Your task to perform on an android device: Open display settings Image 0: 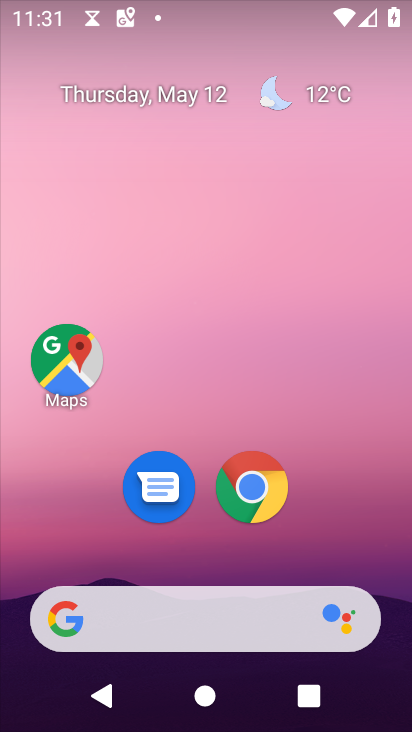
Step 0: drag from (358, 550) to (359, 7)
Your task to perform on an android device: Open display settings Image 1: 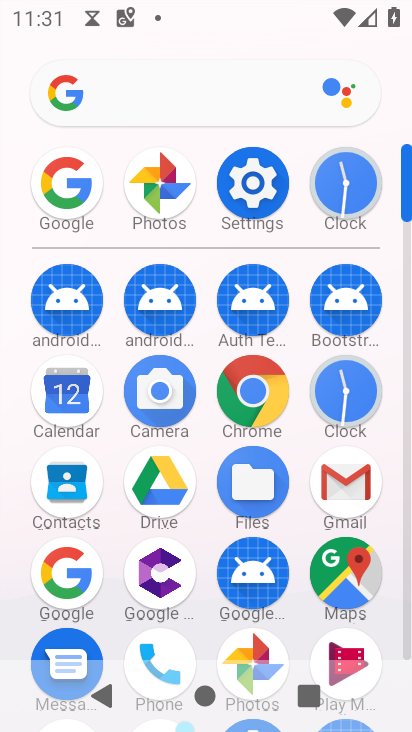
Step 1: click (259, 186)
Your task to perform on an android device: Open display settings Image 2: 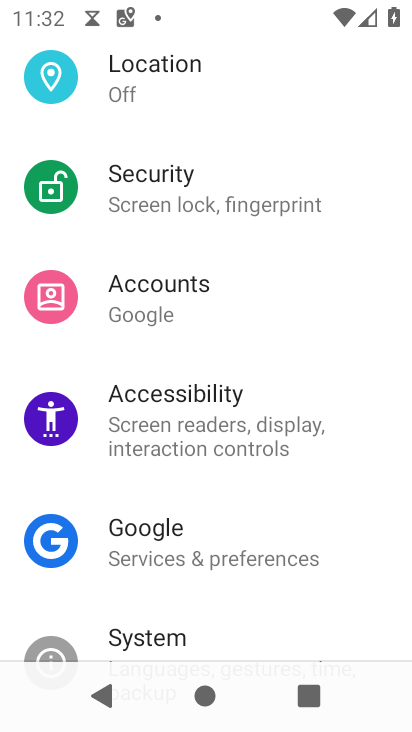
Step 2: drag from (250, 300) to (264, 529)
Your task to perform on an android device: Open display settings Image 3: 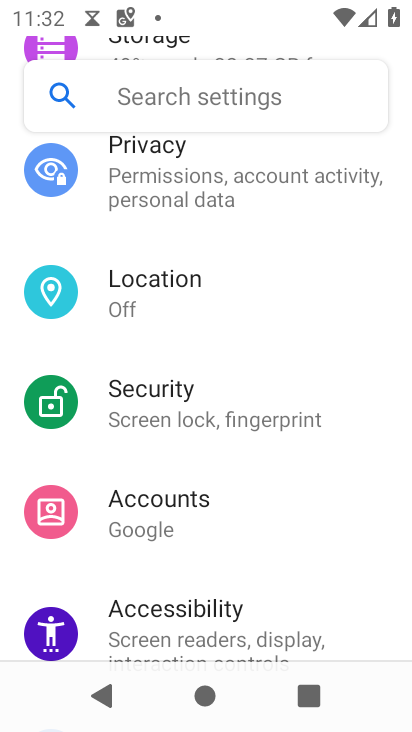
Step 3: drag from (272, 269) to (296, 547)
Your task to perform on an android device: Open display settings Image 4: 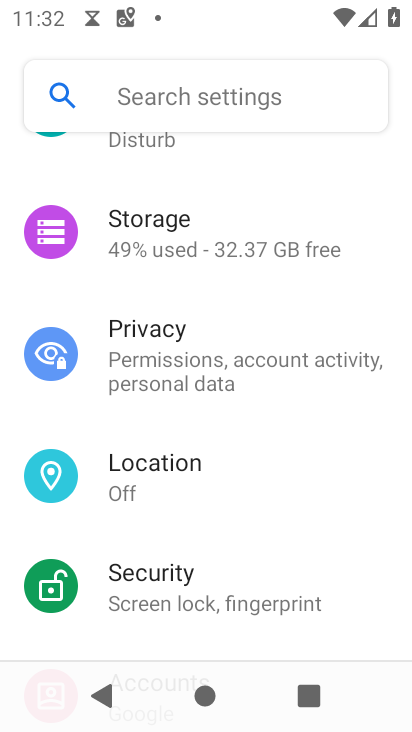
Step 4: drag from (244, 242) to (286, 489)
Your task to perform on an android device: Open display settings Image 5: 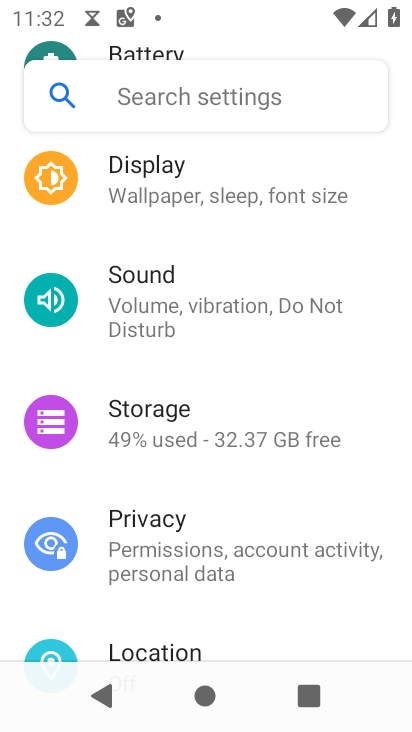
Step 5: click (173, 193)
Your task to perform on an android device: Open display settings Image 6: 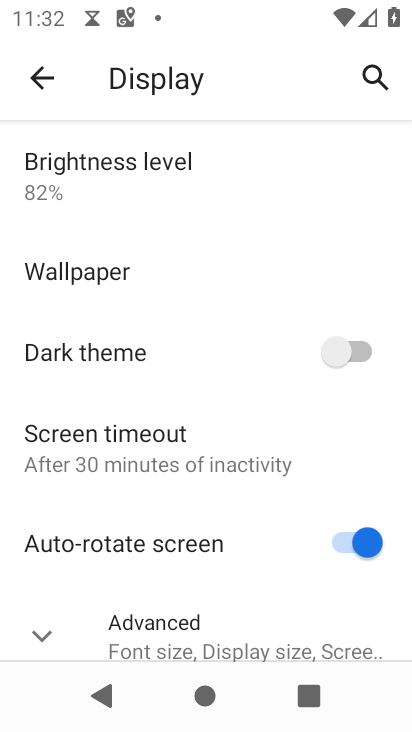
Step 6: task complete